Your task to perform on an android device: check google app version Image 0: 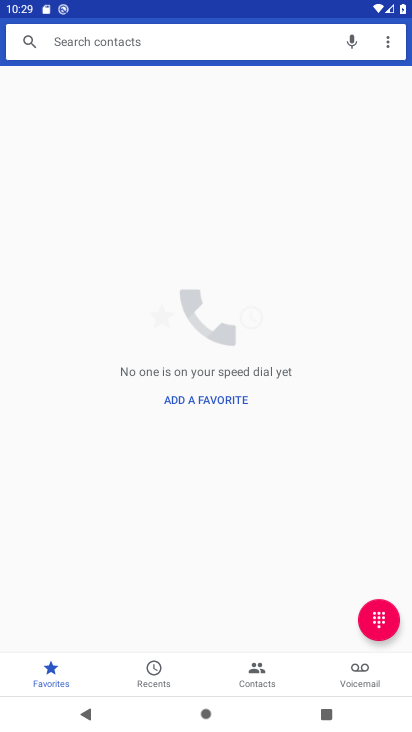
Step 0: press home button
Your task to perform on an android device: check google app version Image 1: 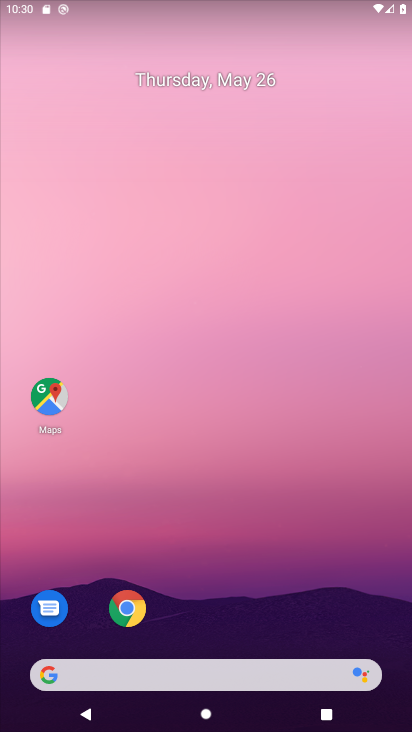
Step 1: drag from (398, 703) to (356, 198)
Your task to perform on an android device: check google app version Image 2: 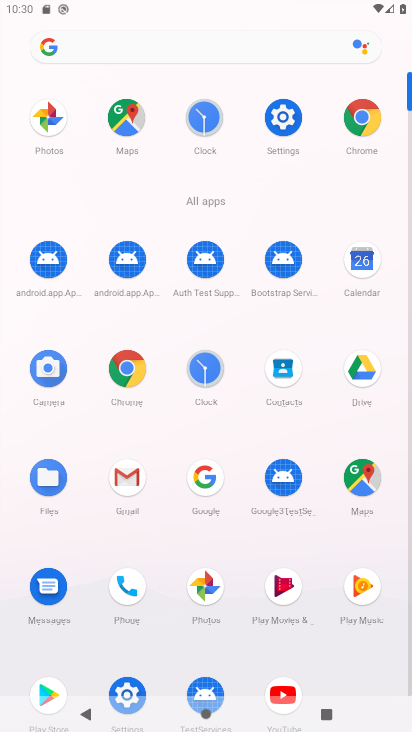
Step 2: click (187, 458)
Your task to perform on an android device: check google app version Image 3: 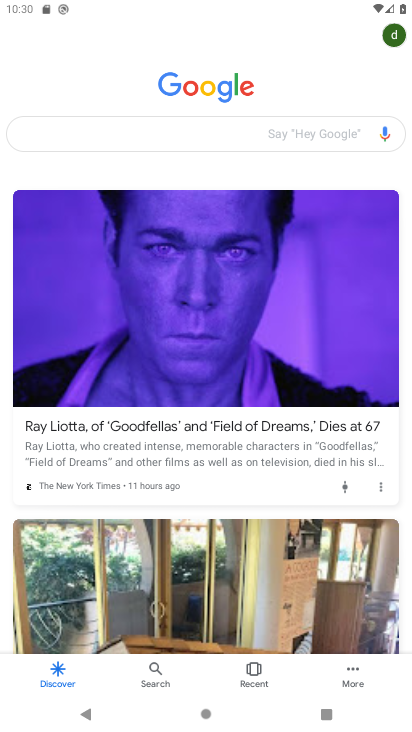
Step 3: click (341, 667)
Your task to perform on an android device: check google app version Image 4: 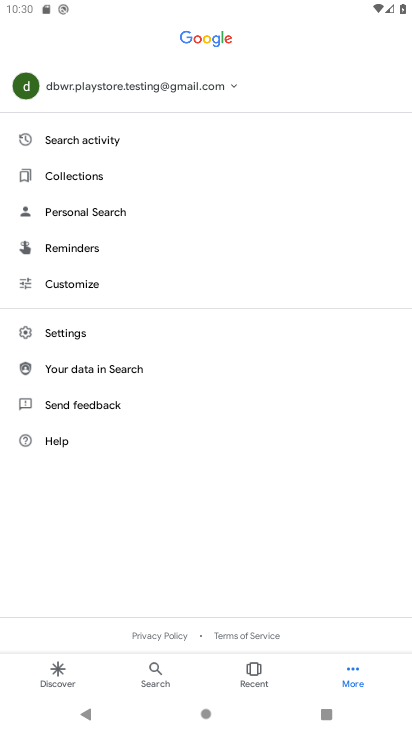
Step 4: click (70, 329)
Your task to perform on an android device: check google app version Image 5: 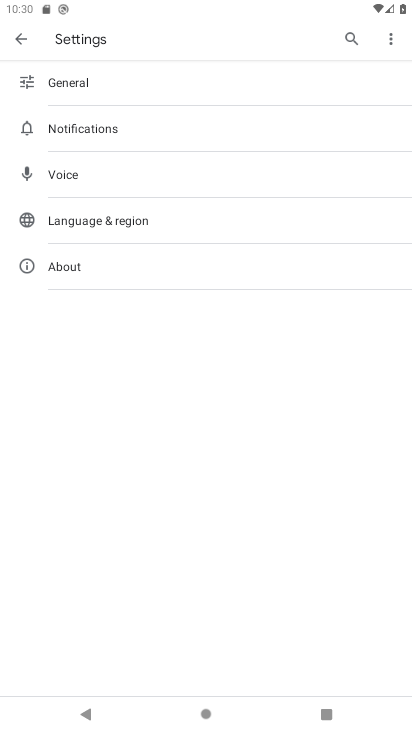
Step 5: click (60, 265)
Your task to perform on an android device: check google app version Image 6: 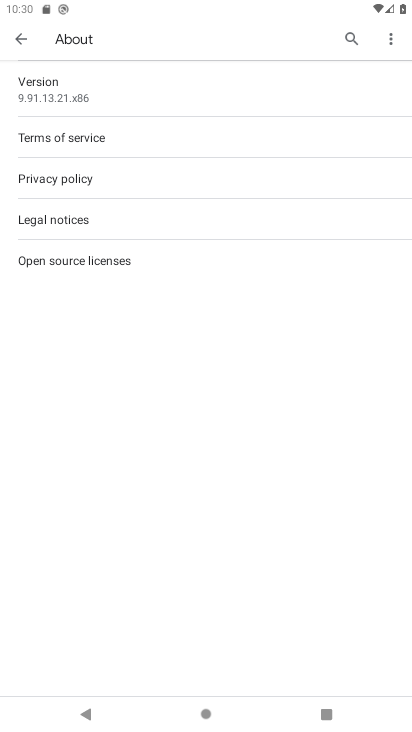
Step 6: click (52, 88)
Your task to perform on an android device: check google app version Image 7: 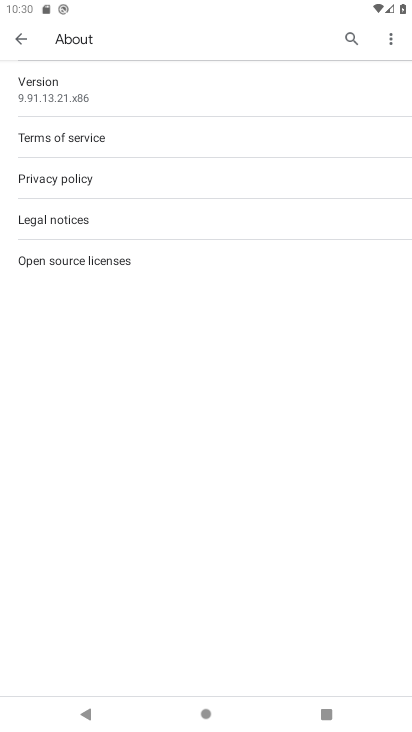
Step 7: task complete